Your task to perform on an android device: Search for Italian restaurants on Maps Image 0: 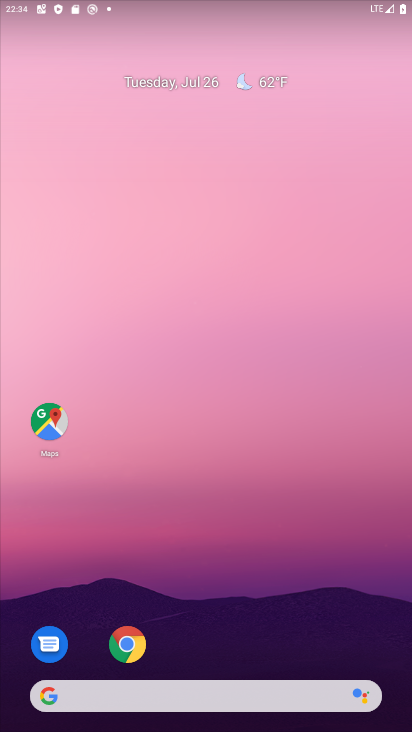
Step 0: click (52, 428)
Your task to perform on an android device: Search for Italian restaurants on Maps Image 1: 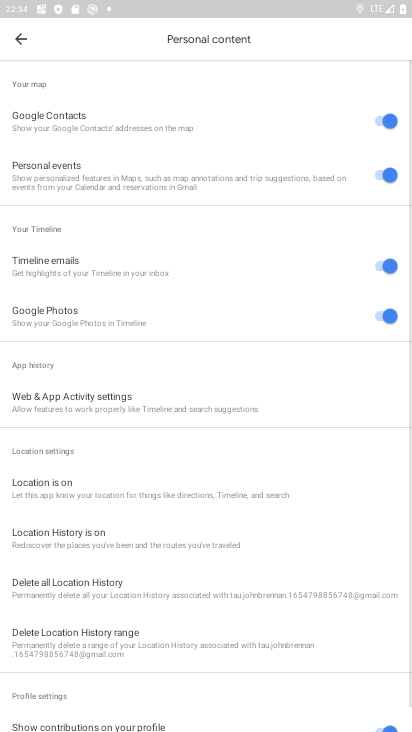
Step 1: click (19, 42)
Your task to perform on an android device: Search for Italian restaurants on Maps Image 2: 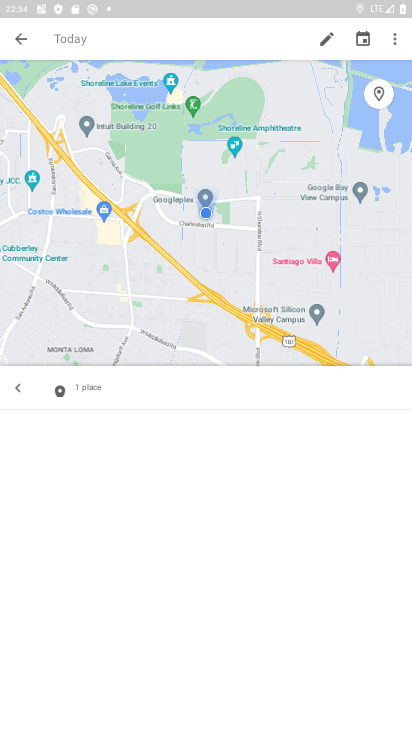
Step 2: click (25, 41)
Your task to perform on an android device: Search for Italian restaurants on Maps Image 3: 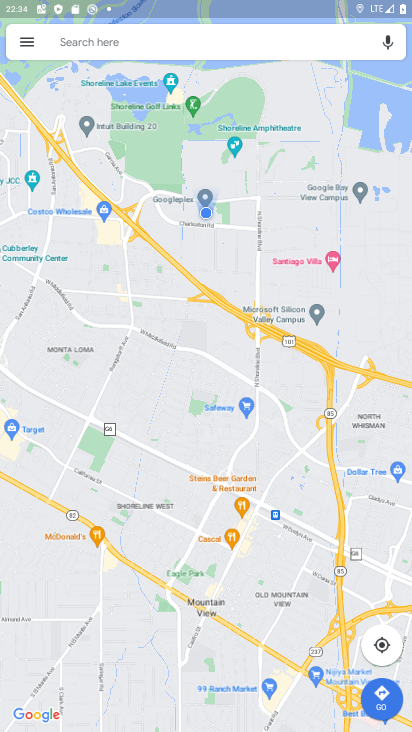
Step 3: click (67, 41)
Your task to perform on an android device: Search for Italian restaurants on Maps Image 4: 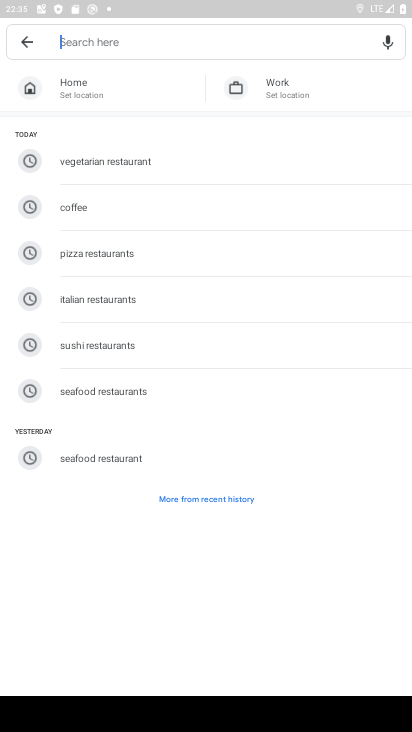
Step 4: click (104, 304)
Your task to perform on an android device: Search for Italian restaurants on Maps Image 5: 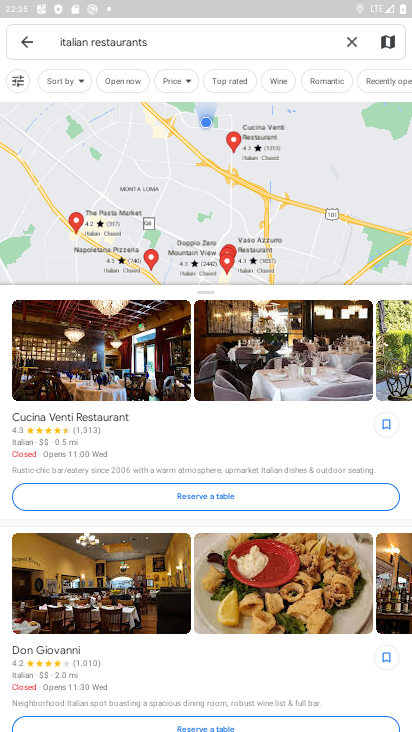
Step 5: task complete